Your task to perform on an android device: change timer sound Image 0: 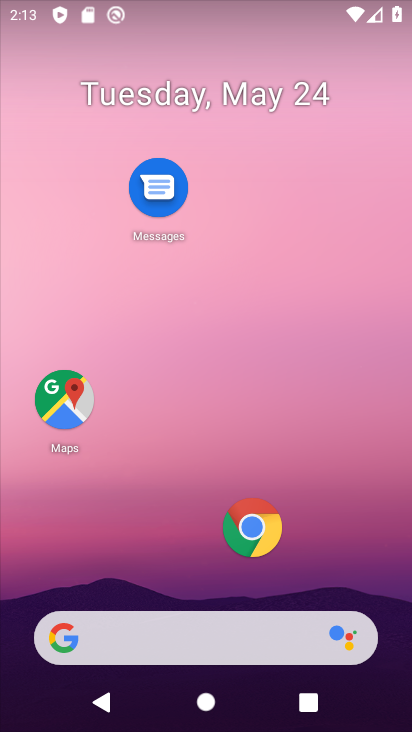
Step 0: drag from (163, 584) to (191, 185)
Your task to perform on an android device: change timer sound Image 1: 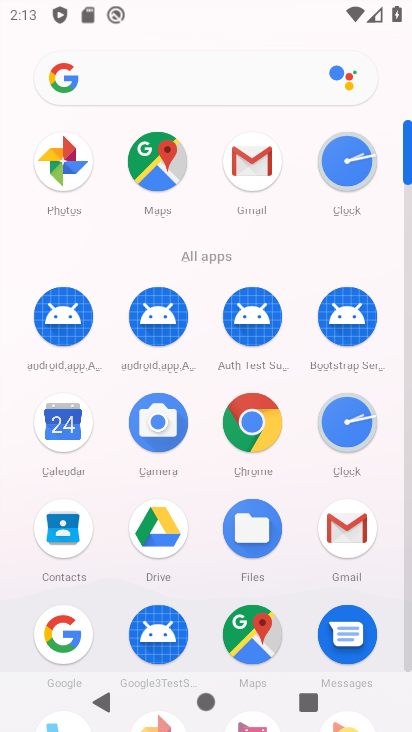
Step 1: click (353, 165)
Your task to perform on an android device: change timer sound Image 2: 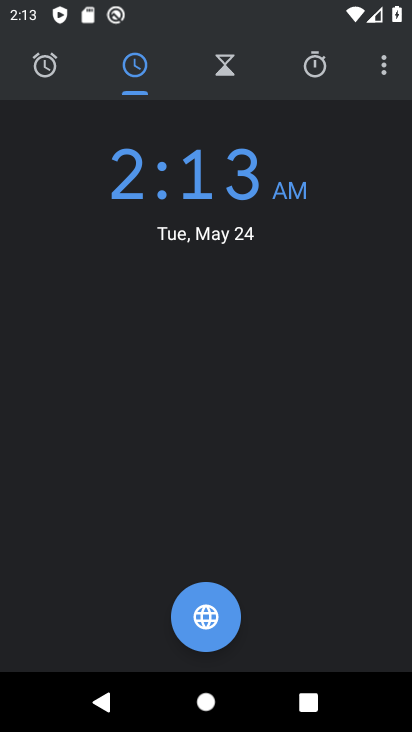
Step 2: click (383, 61)
Your task to perform on an android device: change timer sound Image 3: 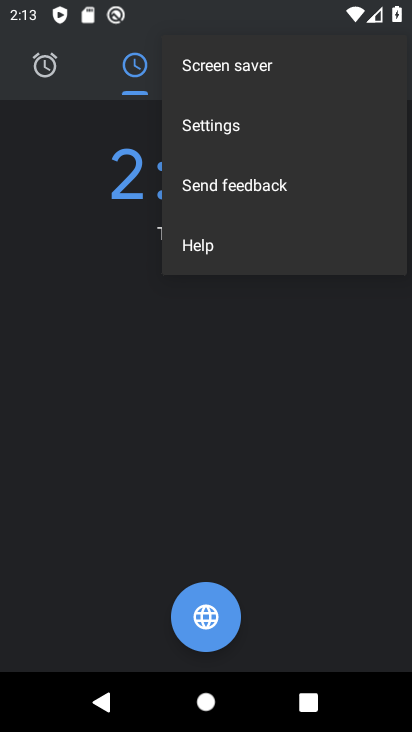
Step 3: click (208, 120)
Your task to perform on an android device: change timer sound Image 4: 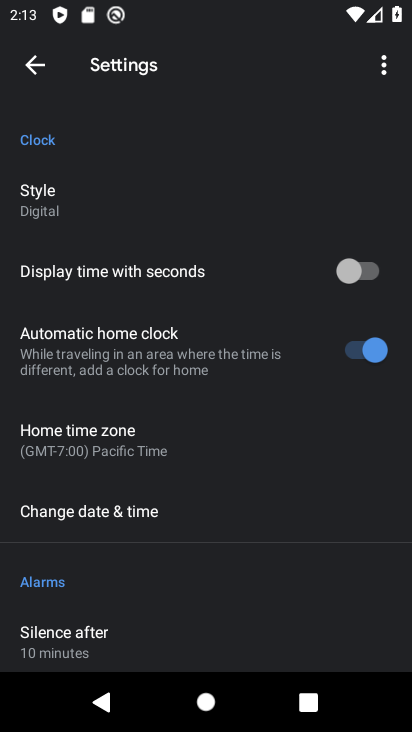
Step 4: drag from (129, 566) to (109, 241)
Your task to perform on an android device: change timer sound Image 5: 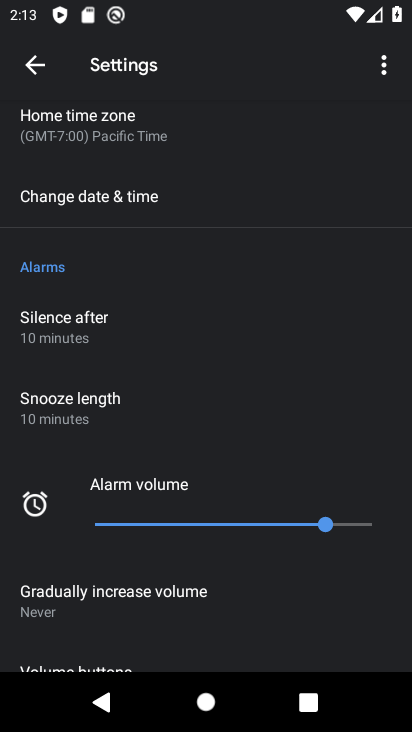
Step 5: drag from (119, 589) to (163, 256)
Your task to perform on an android device: change timer sound Image 6: 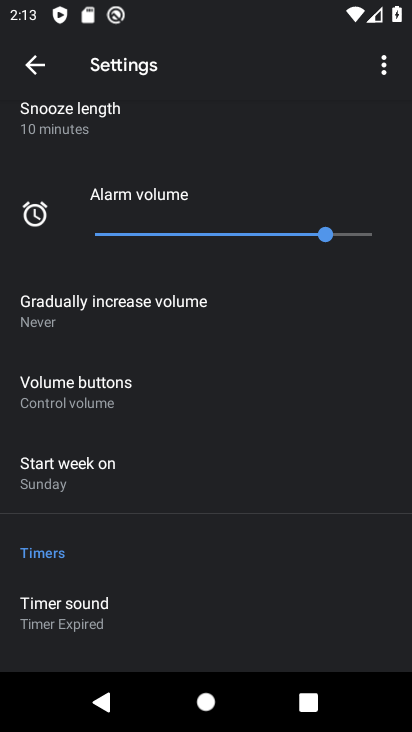
Step 6: click (91, 614)
Your task to perform on an android device: change timer sound Image 7: 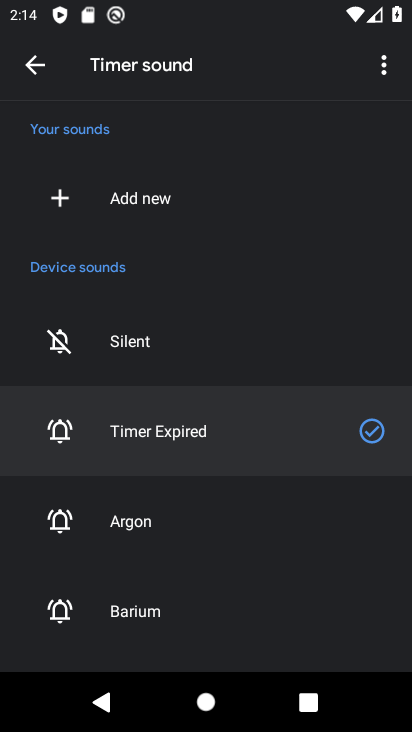
Step 7: click (153, 534)
Your task to perform on an android device: change timer sound Image 8: 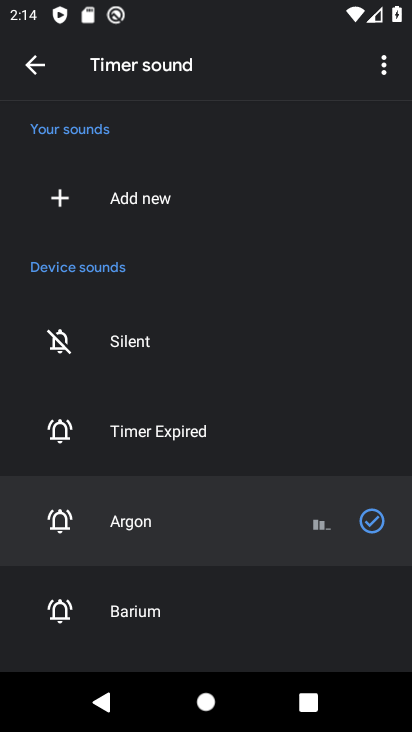
Step 8: task complete